Your task to perform on an android device: open app "PUBG MOBILE" Image 0: 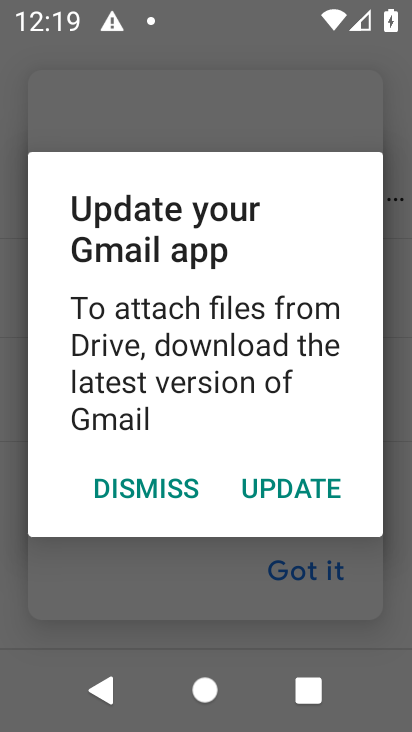
Step 0: press home button
Your task to perform on an android device: open app "PUBG MOBILE" Image 1: 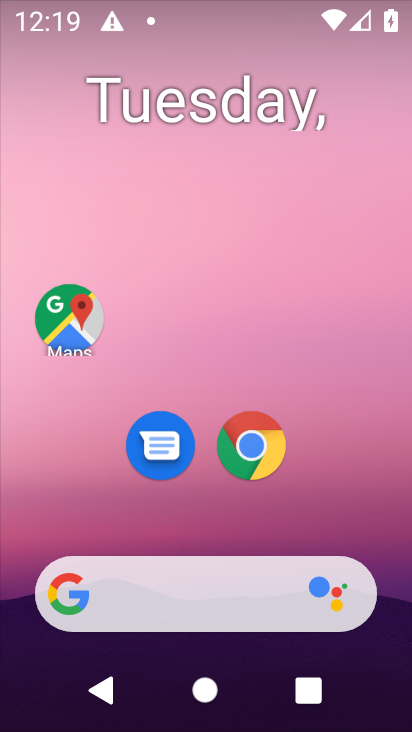
Step 1: drag from (300, 526) to (202, 274)
Your task to perform on an android device: open app "PUBG MOBILE" Image 2: 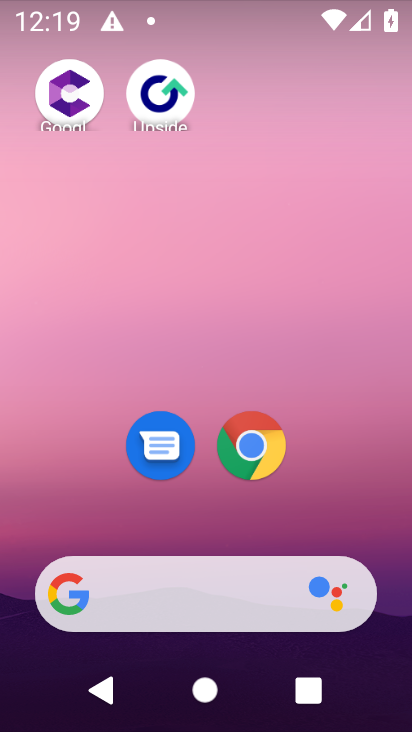
Step 2: drag from (330, 545) to (273, 7)
Your task to perform on an android device: open app "PUBG MOBILE" Image 3: 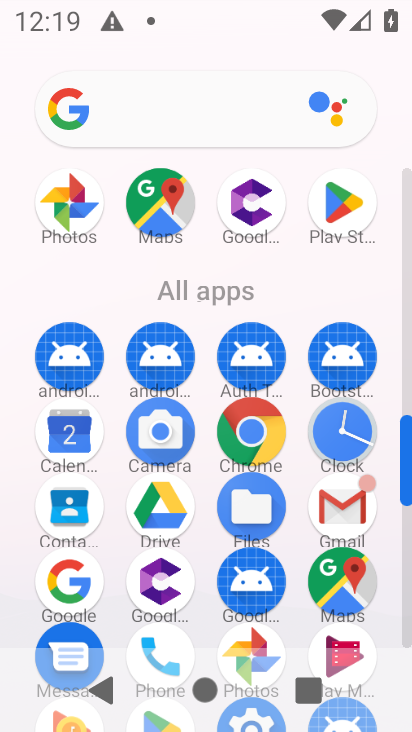
Step 3: drag from (261, 287) to (235, 192)
Your task to perform on an android device: open app "PUBG MOBILE" Image 4: 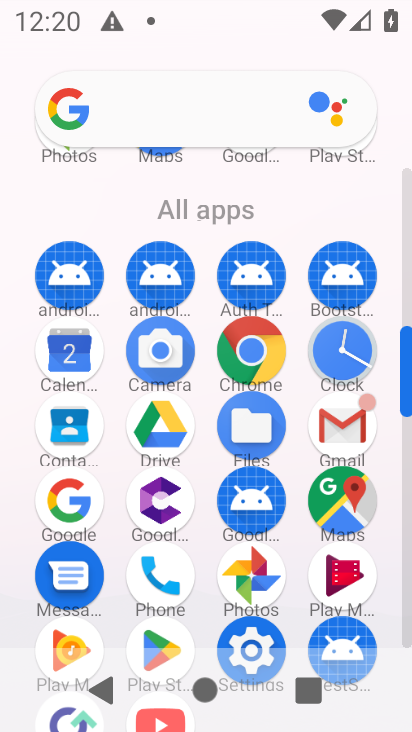
Step 4: click (143, 631)
Your task to perform on an android device: open app "PUBG MOBILE" Image 5: 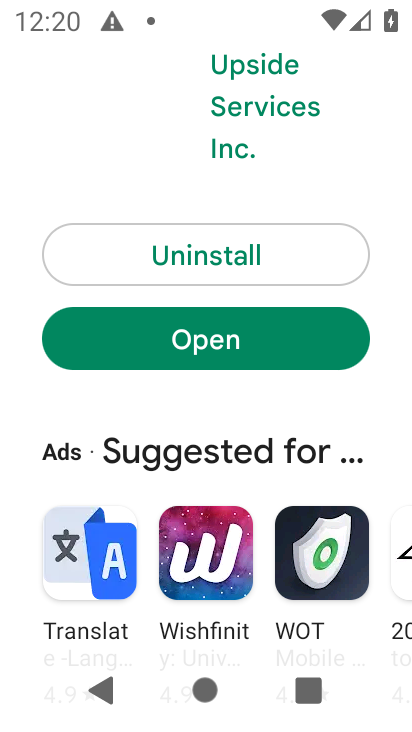
Step 5: drag from (347, 133) to (389, 609)
Your task to perform on an android device: open app "PUBG MOBILE" Image 6: 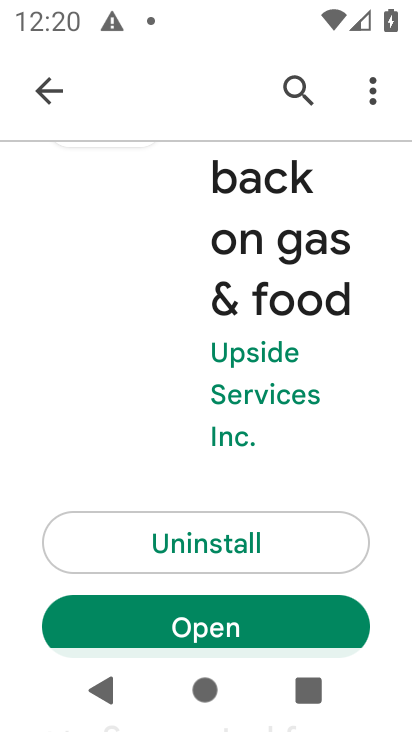
Step 6: click (301, 107)
Your task to perform on an android device: open app "PUBG MOBILE" Image 7: 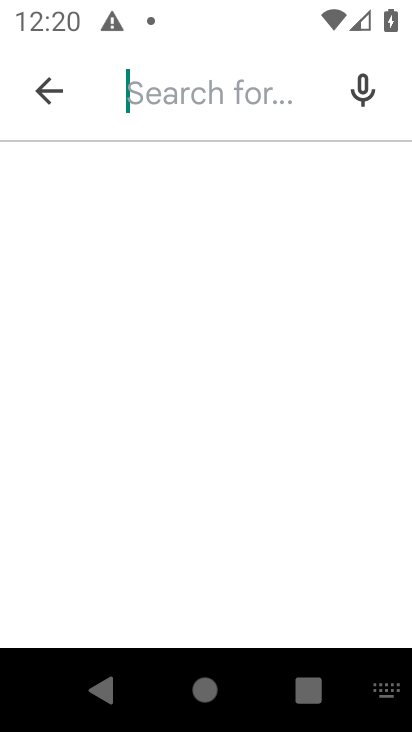
Step 7: type "pubg mobile"
Your task to perform on an android device: open app "PUBG MOBILE" Image 8: 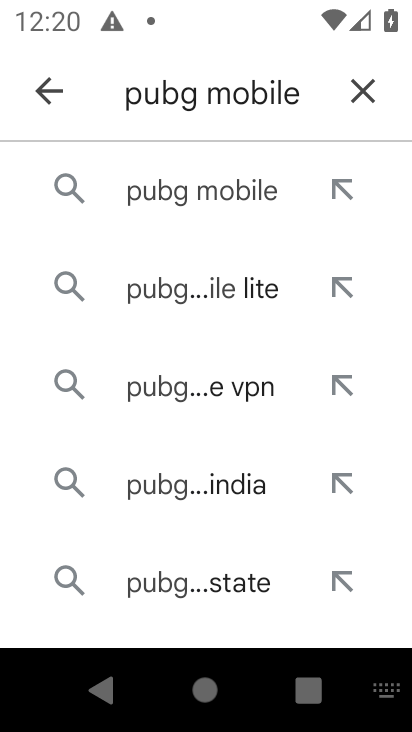
Step 8: click (230, 185)
Your task to perform on an android device: open app "PUBG MOBILE" Image 9: 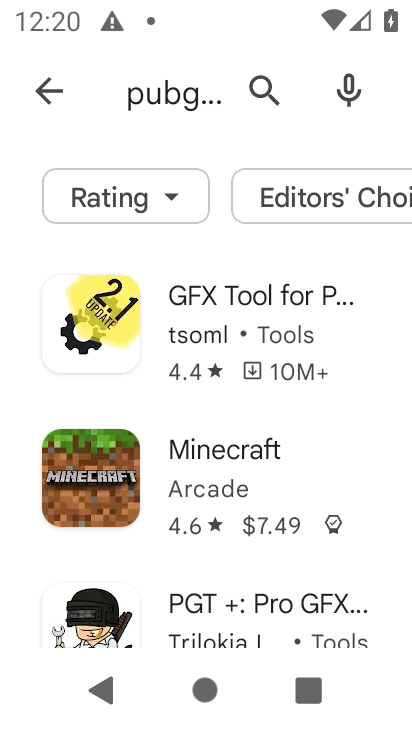
Step 9: task complete